Your task to perform on an android device: move a message to another label in the gmail app Image 0: 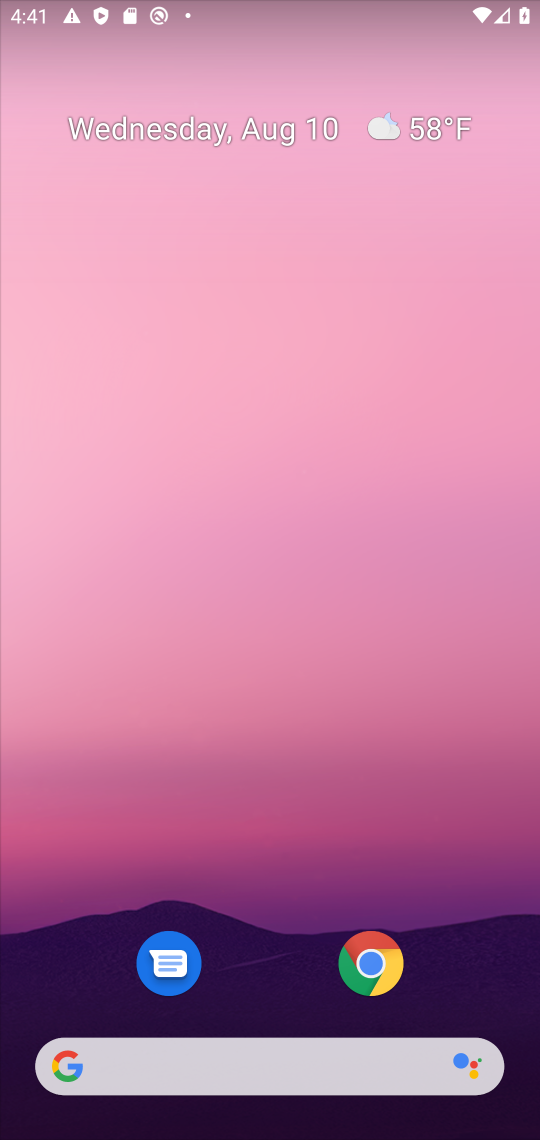
Step 0: drag from (249, 979) to (309, 59)
Your task to perform on an android device: move a message to another label in the gmail app Image 1: 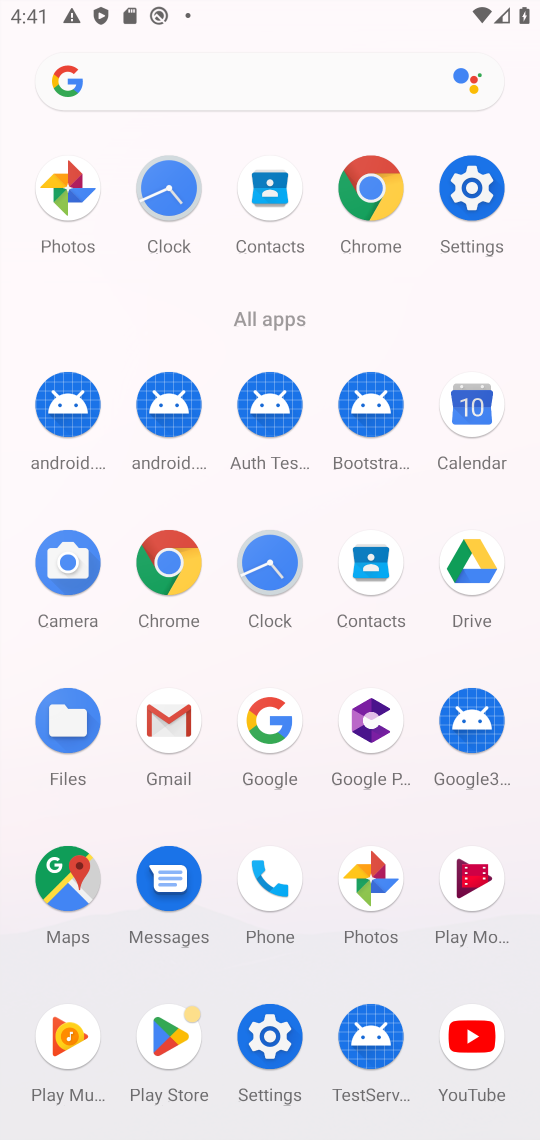
Step 1: click (149, 707)
Your task to perform on an android device: move a message to another label in the gmail app Image 2: 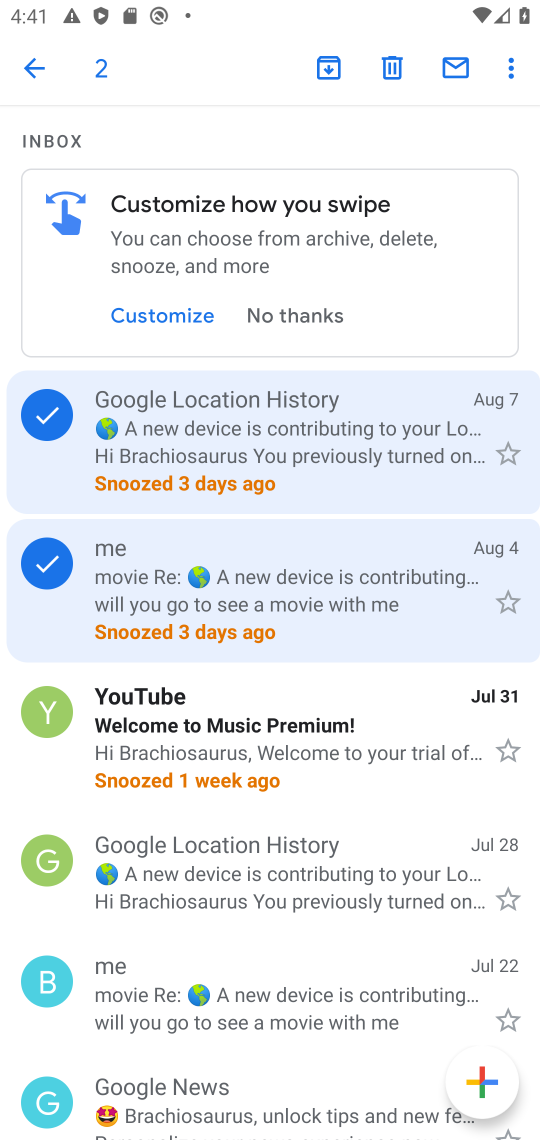
Step 2: click (491, 60)
Your task to perform on an android device: move a message to another label in the gmail app Image 3: 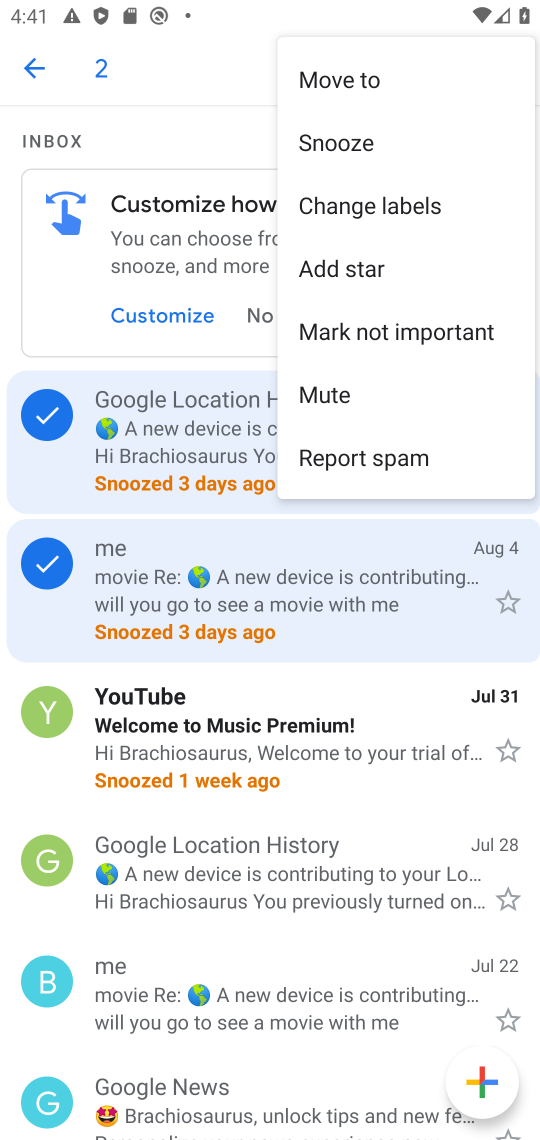
Step 3: click (343, 100)
Your task to perform on an android device: move a message to another label in the gmail app Image 4: 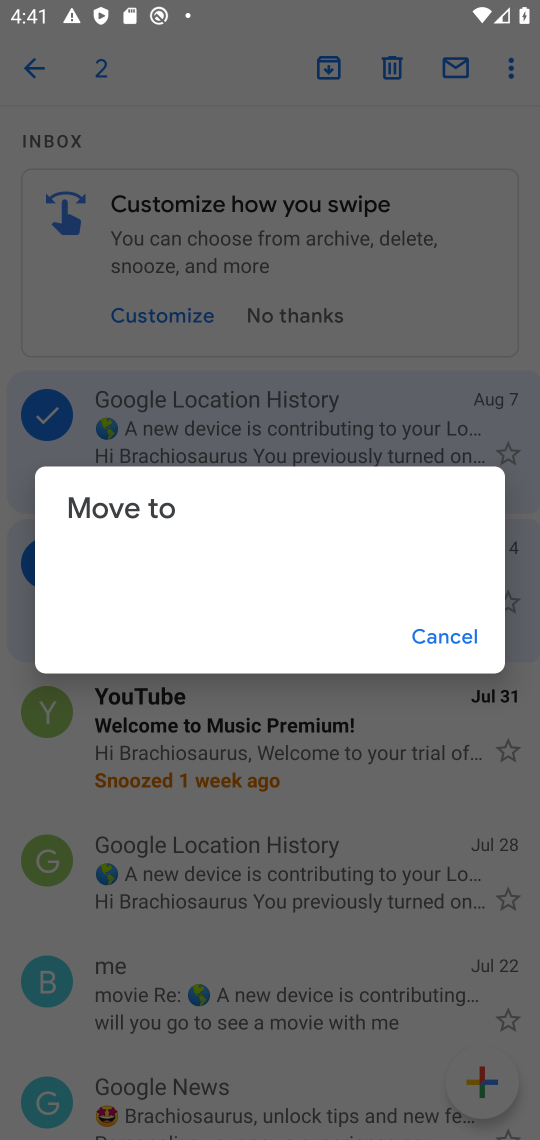
Step 4: task complete